Your task to perform on an android device: Open accessibility settings Image 0: 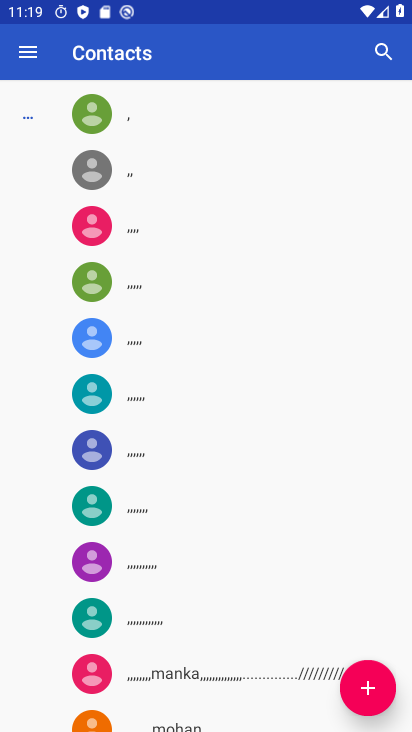
Step 0: press home button
Your task to perform on an android device: Open accessibility settings Image 1: 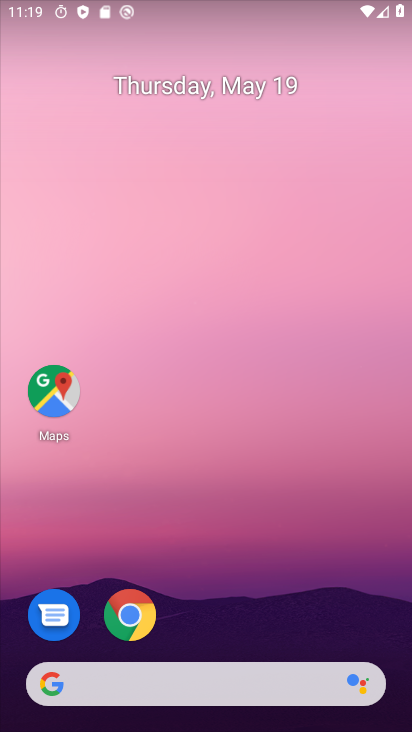
Step 1: drag from (388, 617) to (292, 42)
Your task to perform on an android device: Open accessibility settings Image 2: 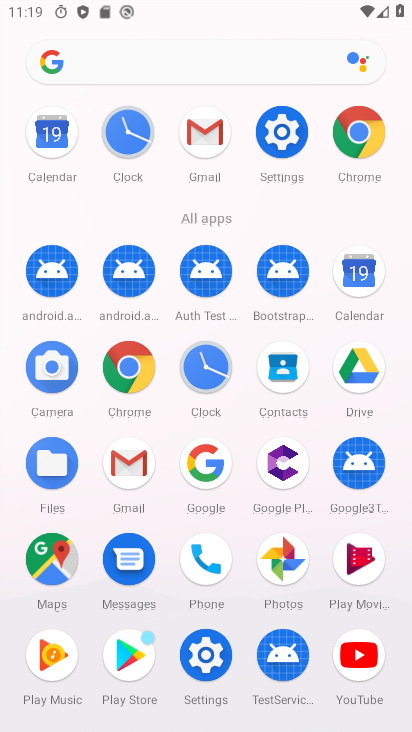
Step 2: click (280, 138)
Your task to perform on an android device: Open accessibility settings Image 3: 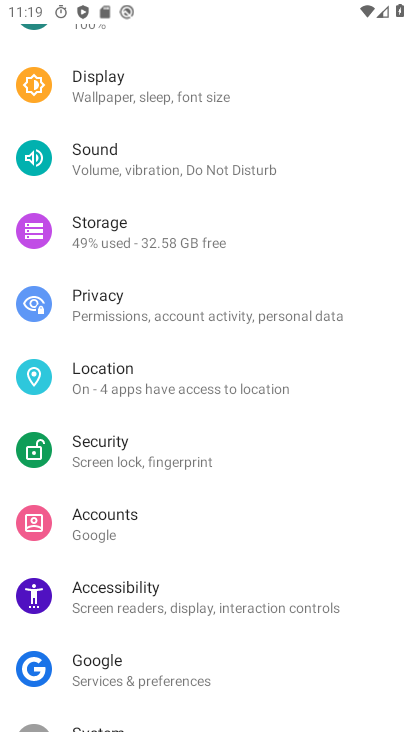
Step 3: click (181, 600)
Your task to perform on an android device: Open accessibility settings Image 4: 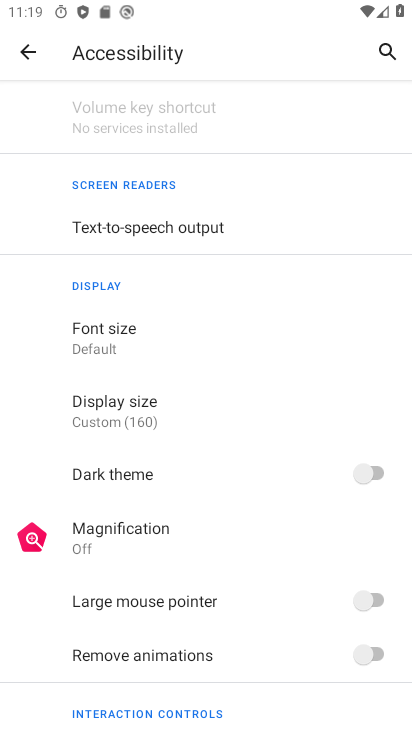
Step 4: task complete